Your task to perform on an android device: add a contact Image 0: 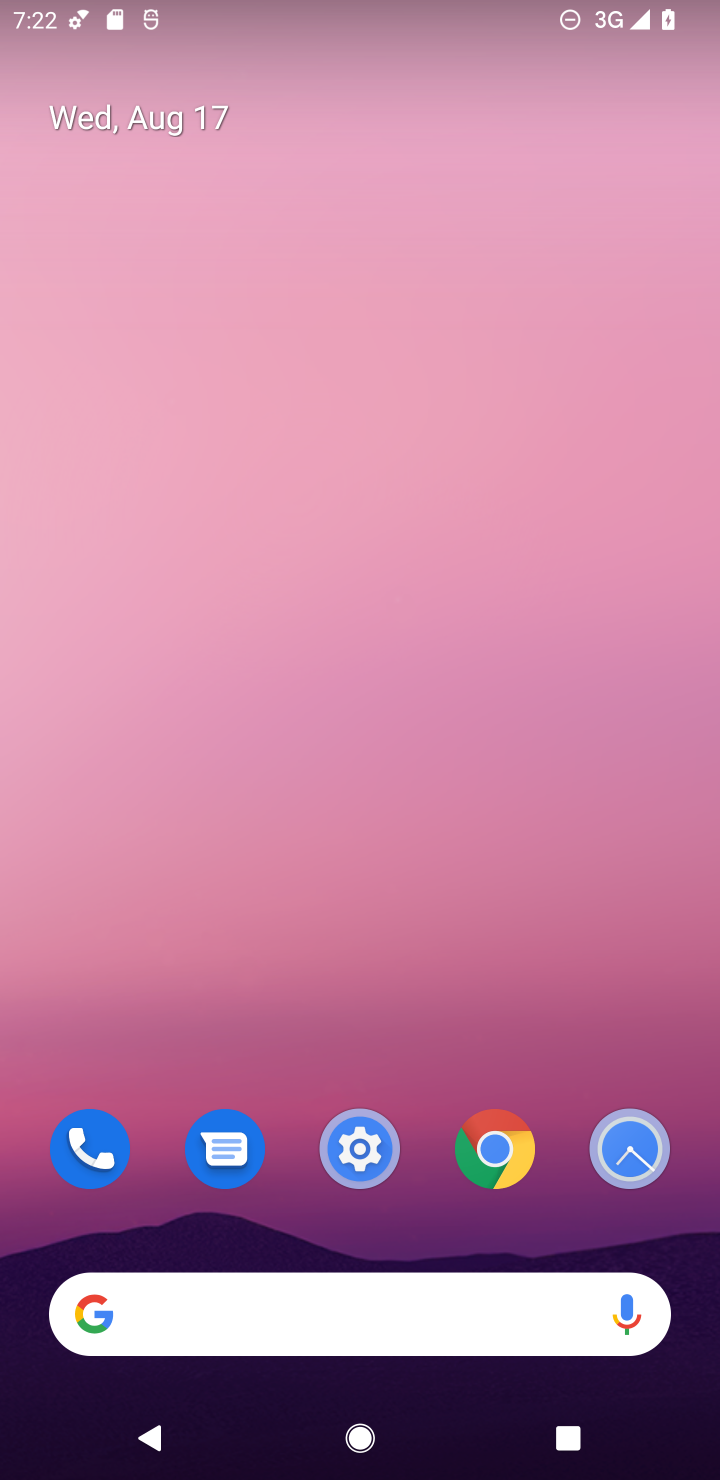
Step 0: drag from (419, 1089) to (419, 104)
Your task to perform on an android device: add a contact Image 1: 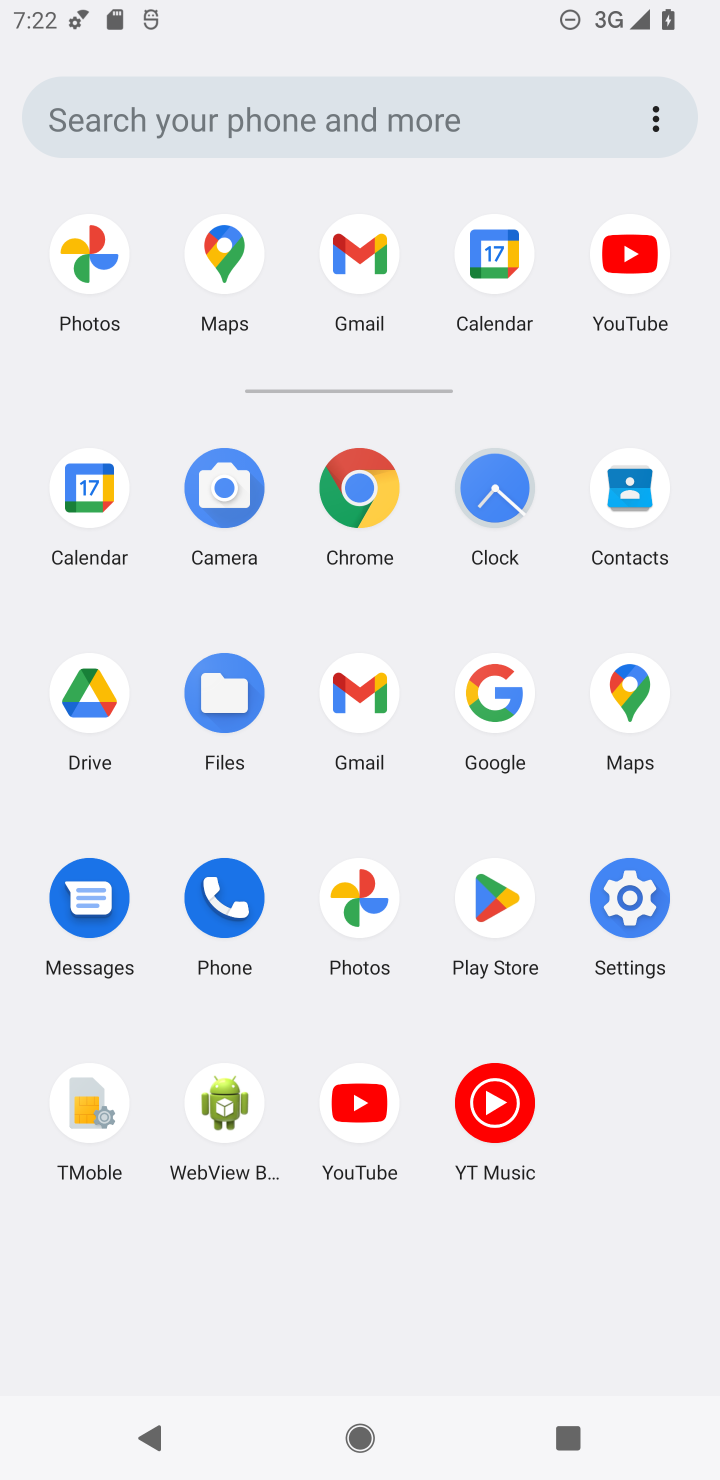
Step 1: click (622, 491)
Your task to perform on an android device: add a contact Image 2: 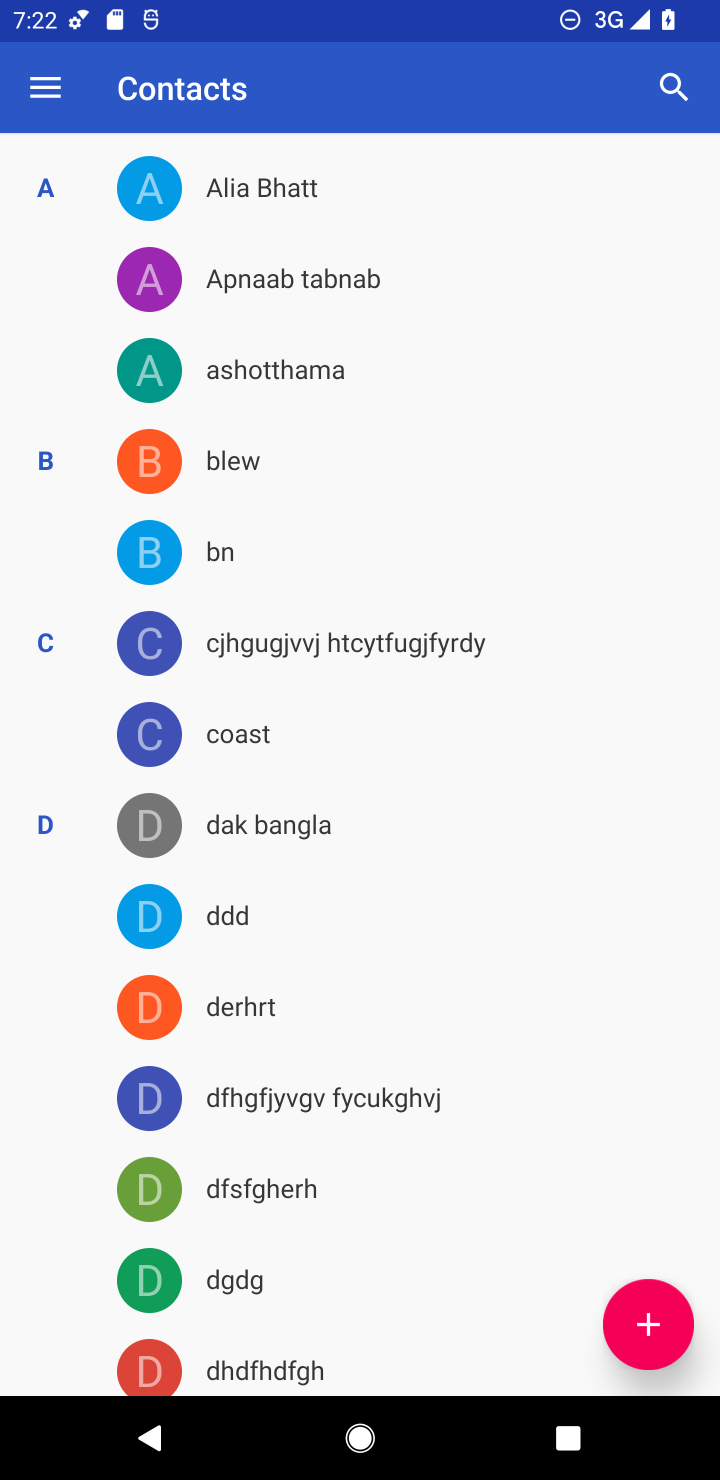
Step 2: click (646, 1328)
Your task to perform on an android device: add a contact Image 3: 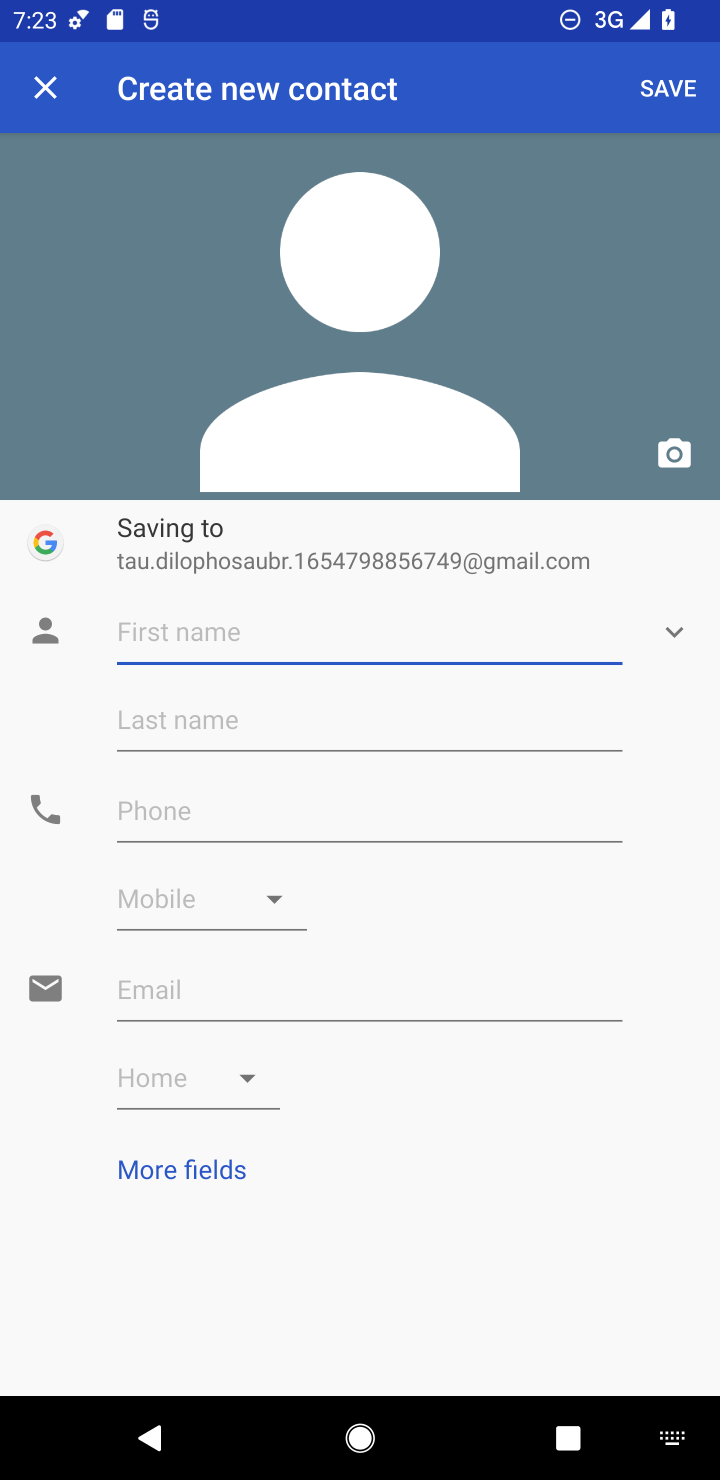
Step 3: type "jjjjj"
Your task to perform on an android device: add a contact Image 4: 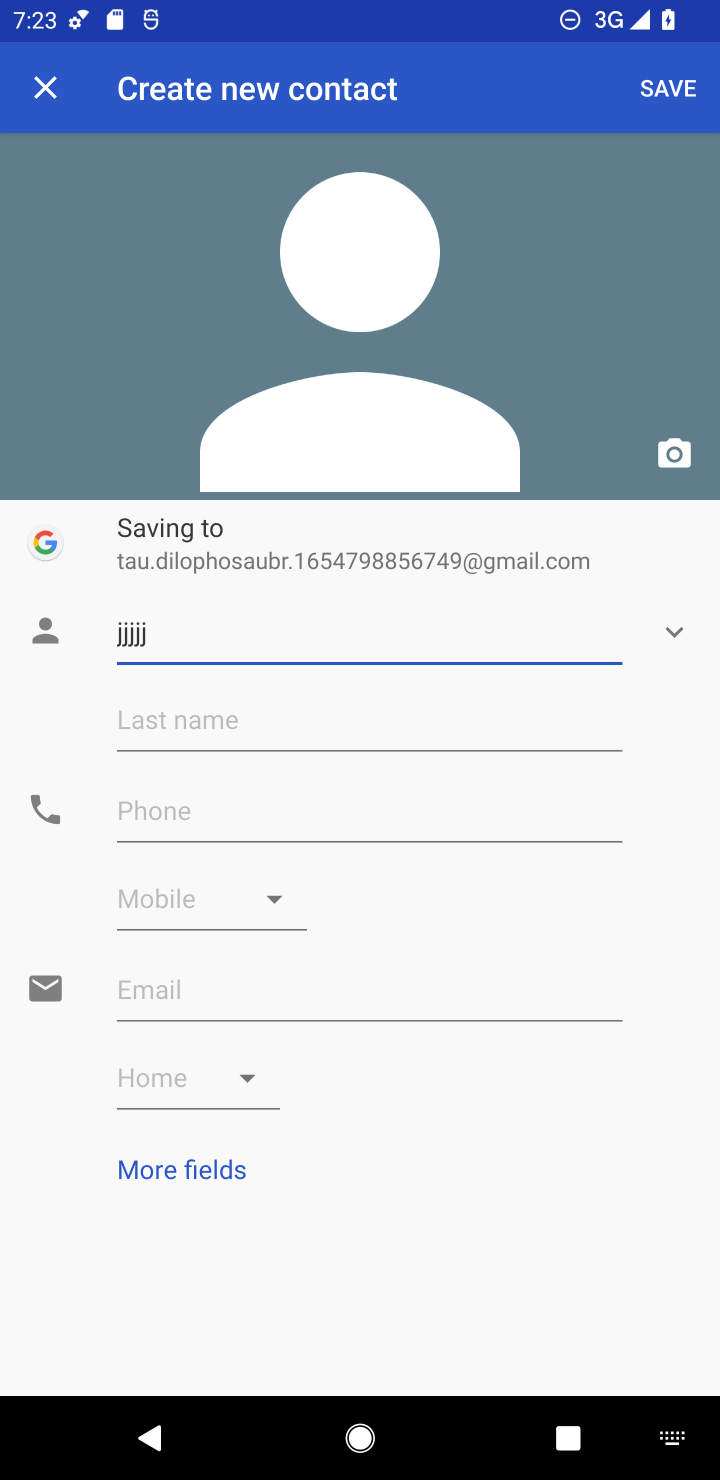
Step 4: click (254, 799)
Your task to perform on an android device: add a contact Image 5: 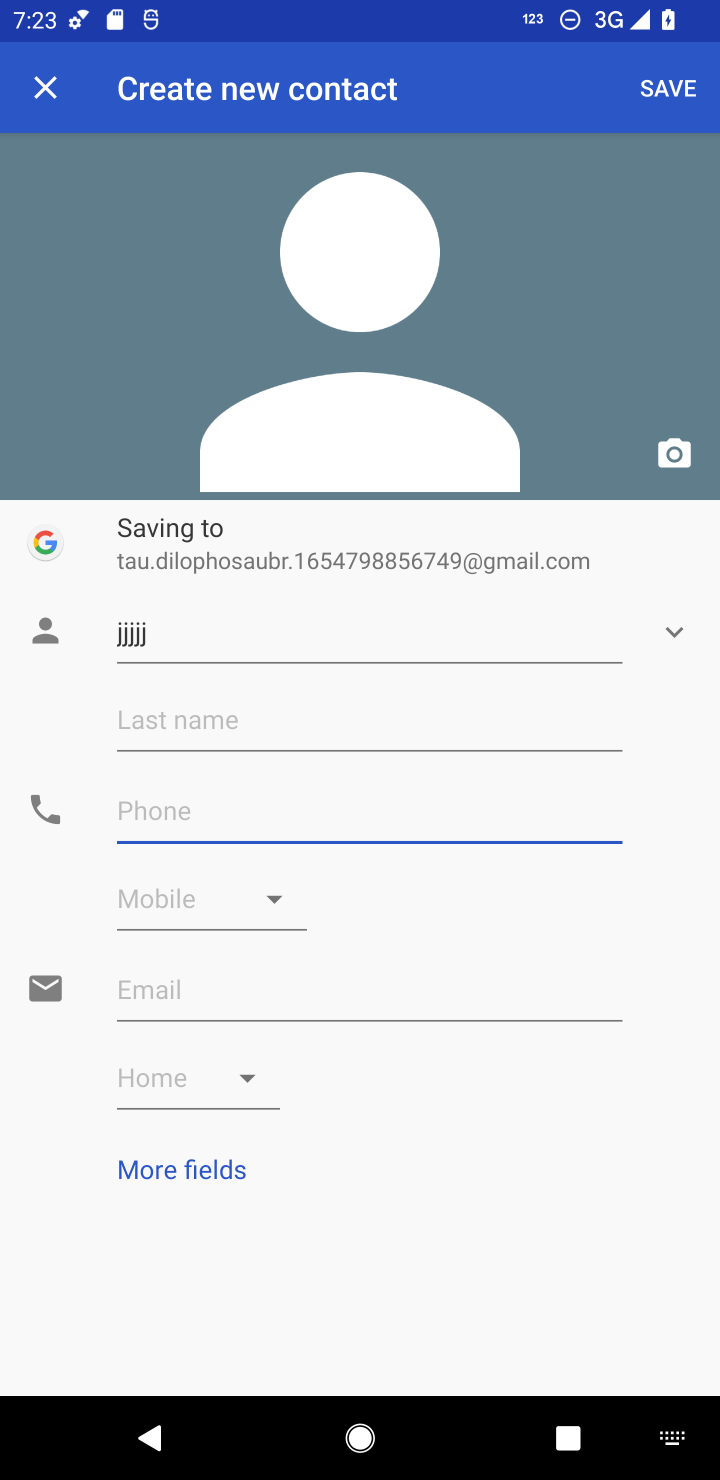
Step 5: type "888"
Your task to perform on an android device: add a contact Image 6: 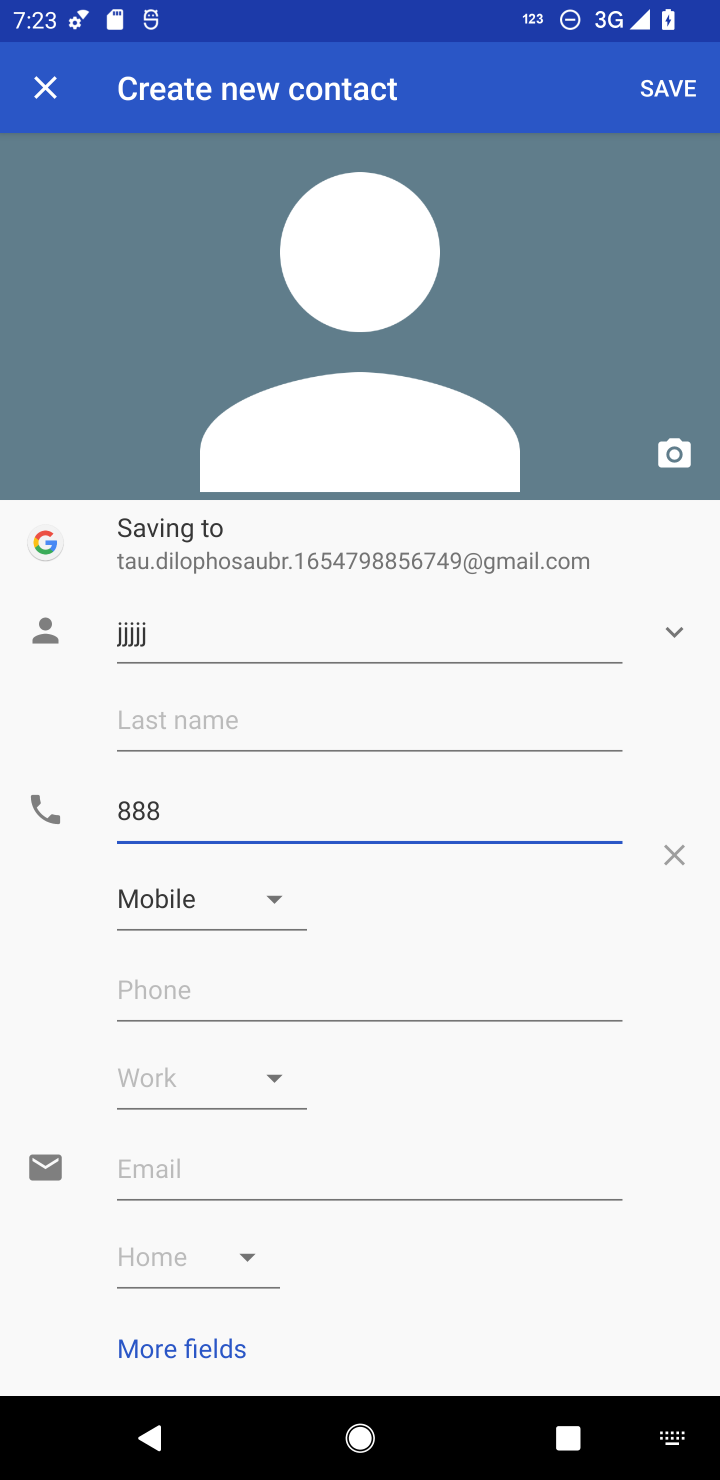
Step 6: click (655, 83)
Your task to perform on an android device: add a contact Image 7: 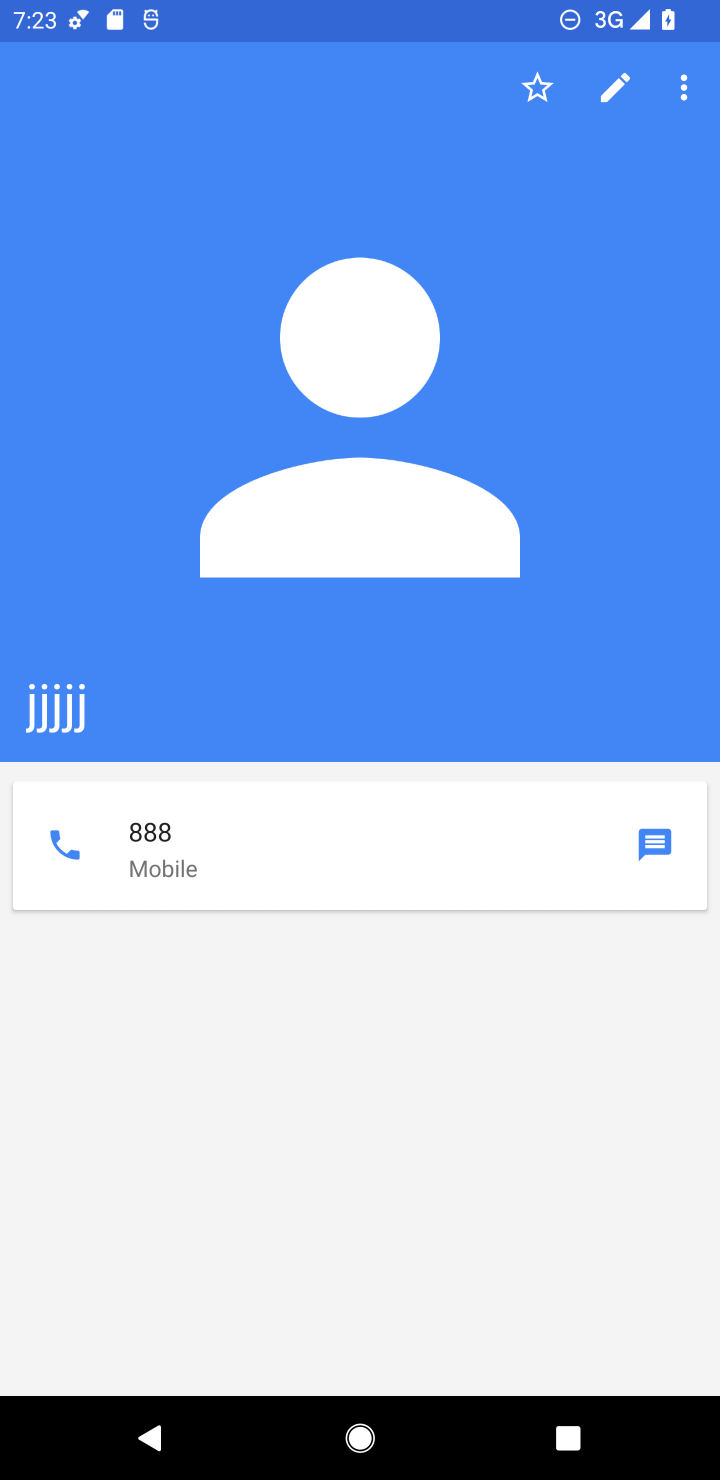
Step 7: task complete